Your task to perform on an android device: turn off improve location accuracy Image 0: 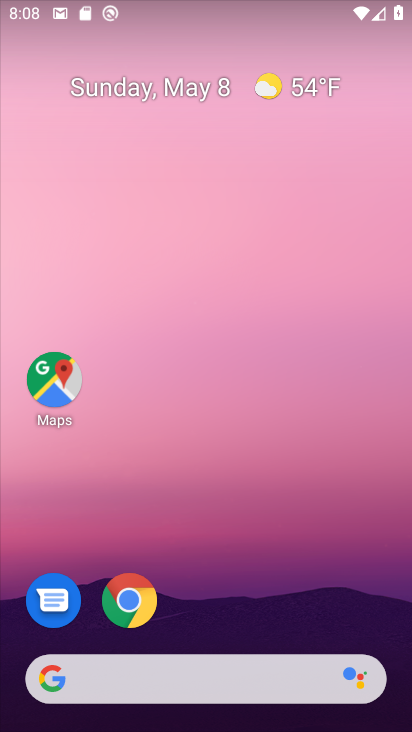
Step 0: drag from (269, 585) to (278, 253)
Your task to perform on an android device: turn off improve location accuracy Image 1: 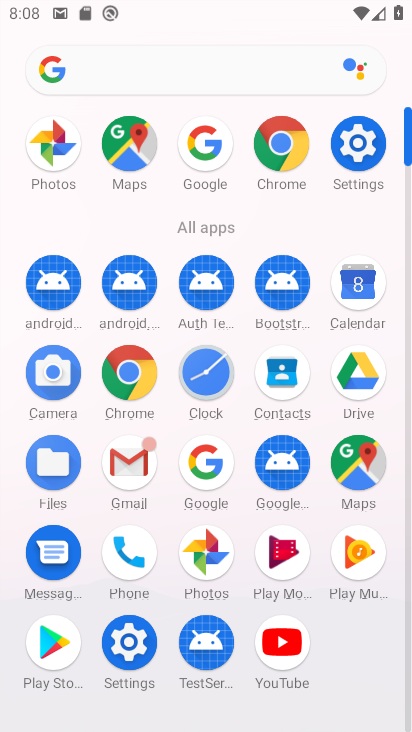
Step 1: click (360, 170)
Your task to perform on an android device: turn off improve location accuracy Image 2: 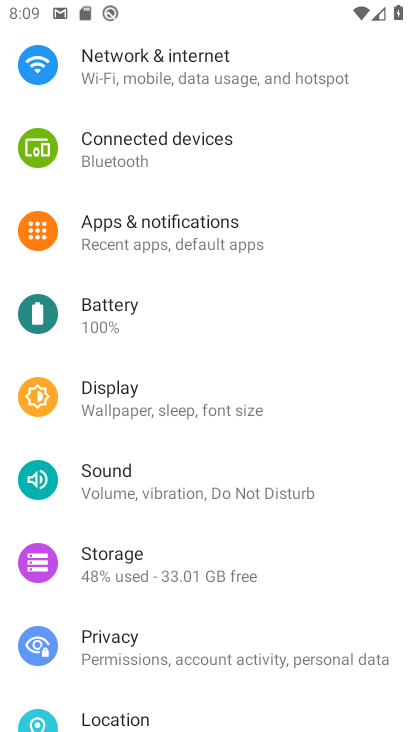
Step 2: click (187, 712)
Your task to perform on an android device: turn off improve location accuracy Image 3: 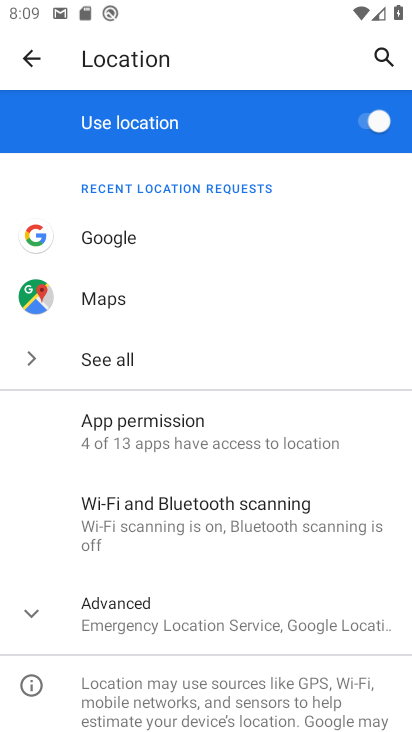
Step 3: click (202, 621)
Your task to perform on an android device: turn off improve location accuracy Image 4: 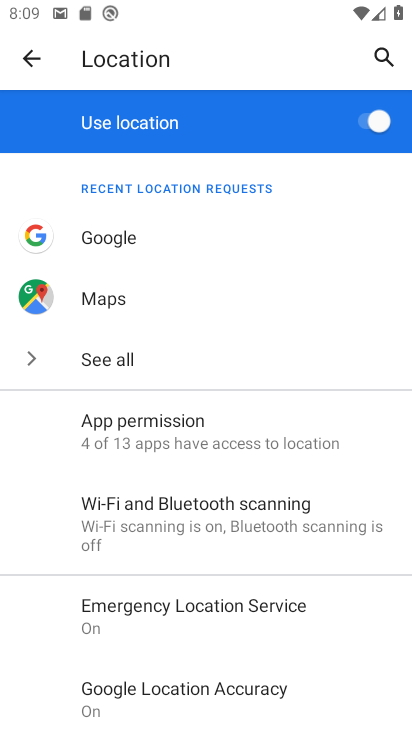
Step 4: drag from (211, 656) to (180, 200)
Your task to perform on an android device: turn off improve location accuracy Image 5: 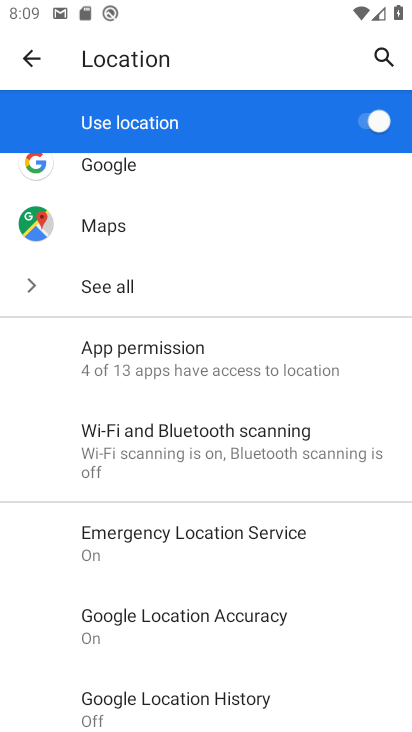
Step 5: drag from (178, 662) to (167, 343)
Your task to perform on an android device: turn off improve location accuracy Image 6: 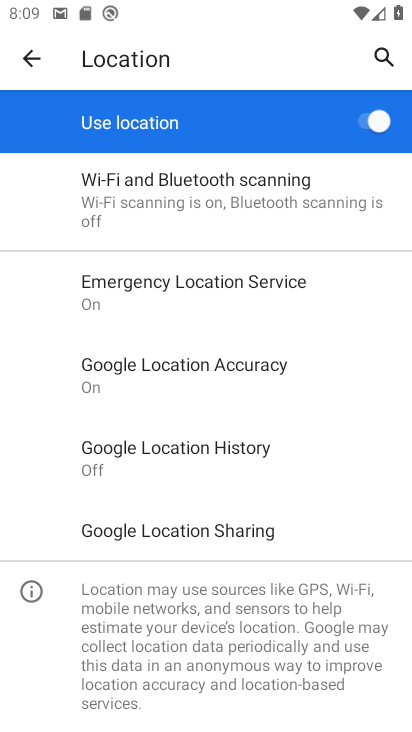
Step 6: click (241, 388)
Your task to perform on an android device: turn off improve location accuracy Image 7: 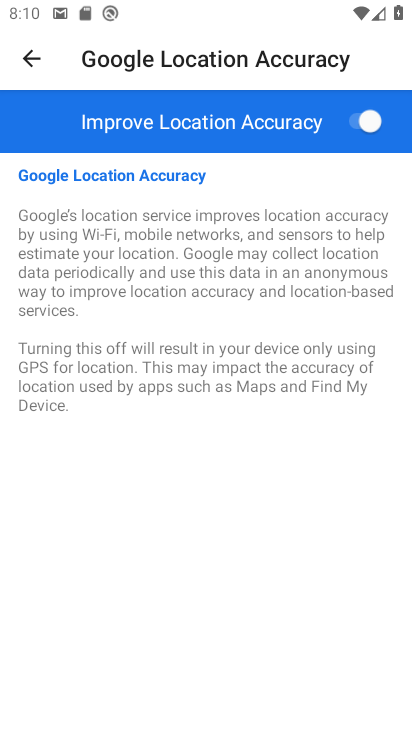
Step 7: click (357, 127)
Your task to perform on an android device: turn off improve location accuracy Image 8: 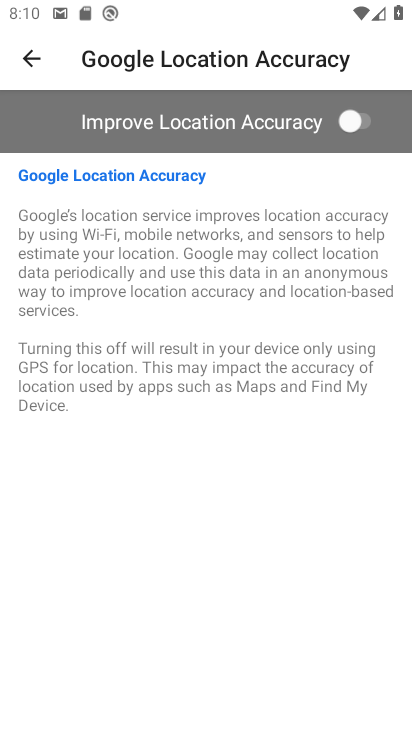
Step 8: task complete